Your task to perform on an android device: Open display settings Image 0: 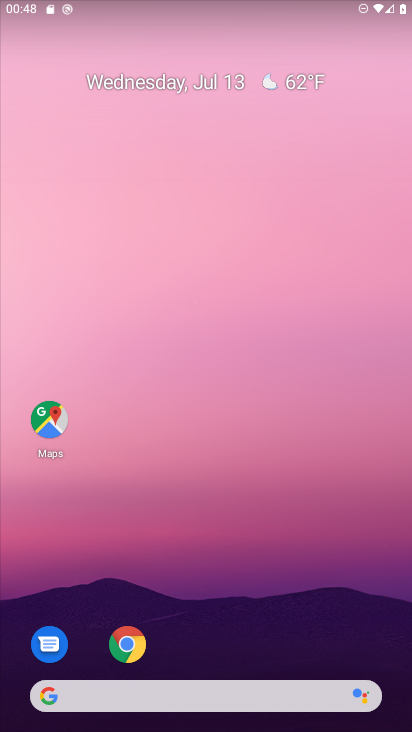
Step 0: click (376, 414)
Your task to perform on an android device: Open display settings Image 1: 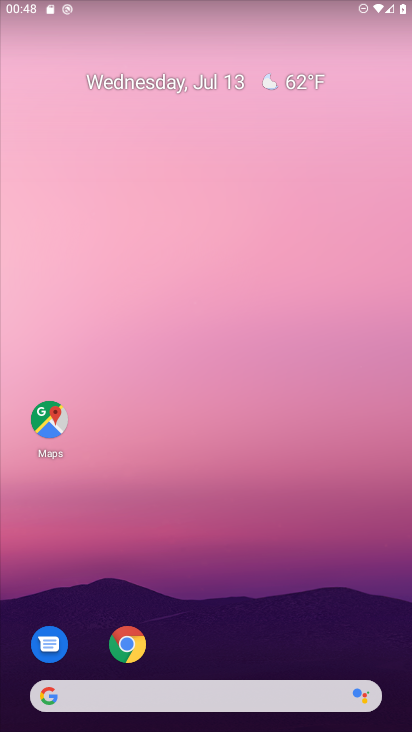
Step 1: drag from (228, 652) to (222, 79)
Your task to perform on an android device: Open display settings Image 2: 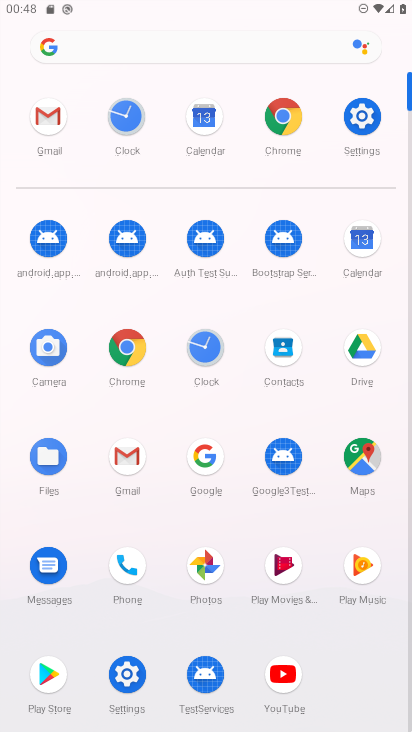
Step 2: click (365, 118)
Your task to perform on an android device: Open display settings Image 3: 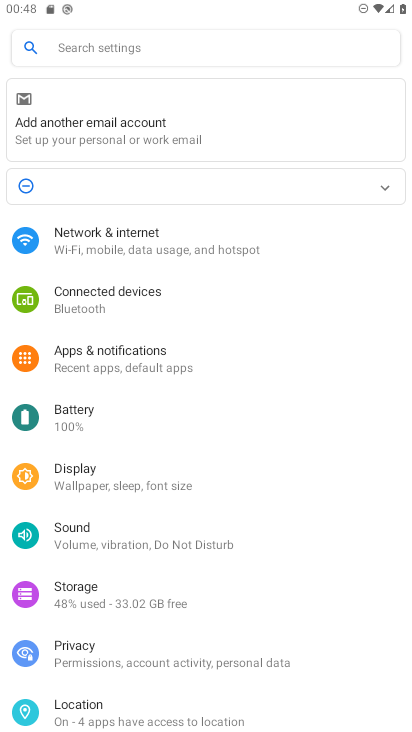
Step 3: click (68, 454)
Your task to perform on an android device: Open display settings Image 4: 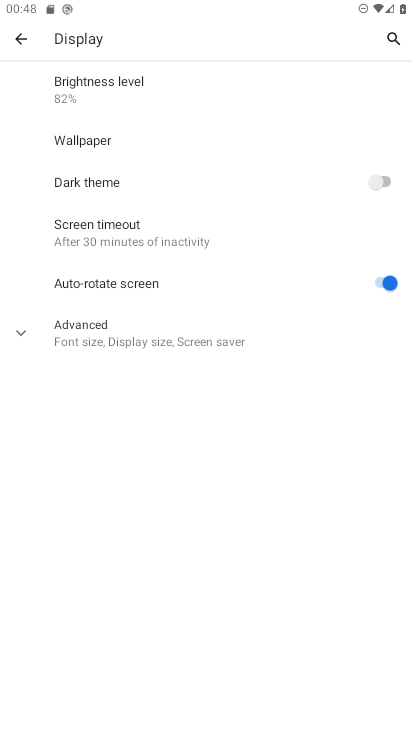
Step 4: click (136, 326)
Your task to perform on an android device: Open display settings Image 5: 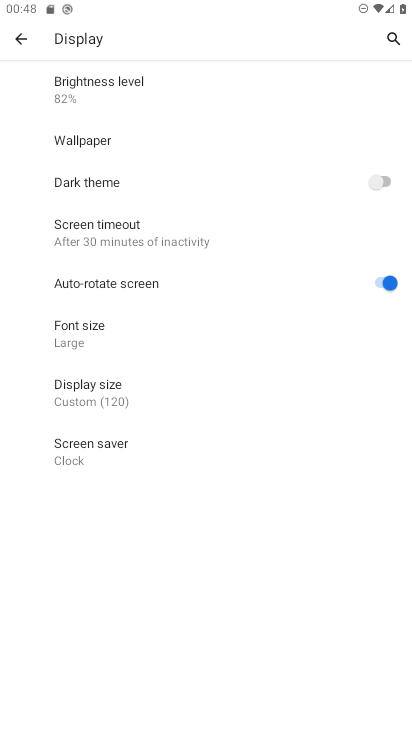
Step 5: task complete